Your task to perform on an android device: See recent photos Image 0: 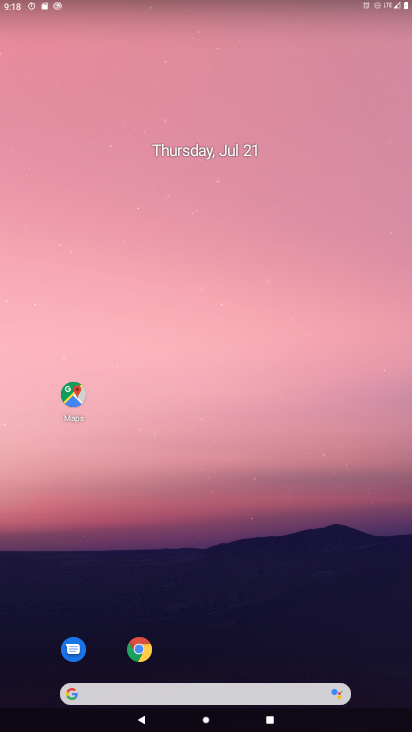
Step 0: drag from (318, 655) to (157, 58)
Your task to perform on an android device: See recent photos Image 1: 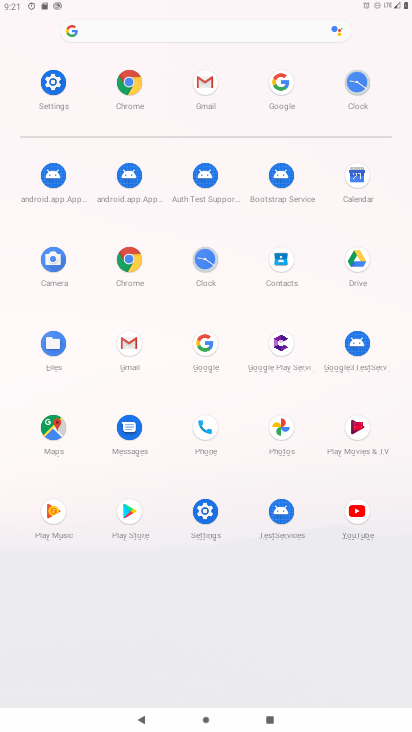
Step 1: click (281, 429)
Your task to perform on an android device: See recent photos Image 2: 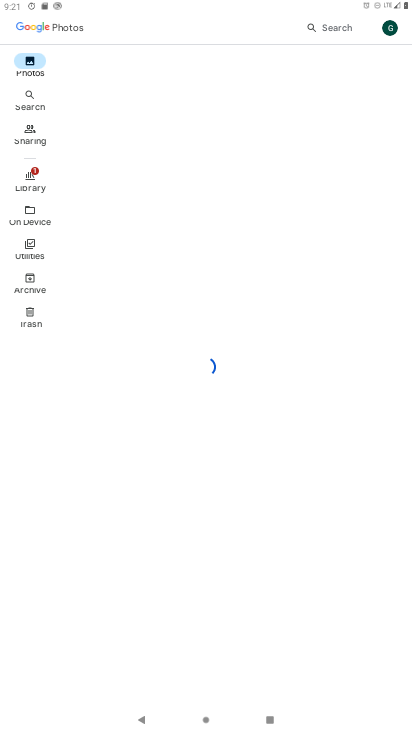
Step 2: task complete